Your task to perform on an android device: show emergency info Image 0: 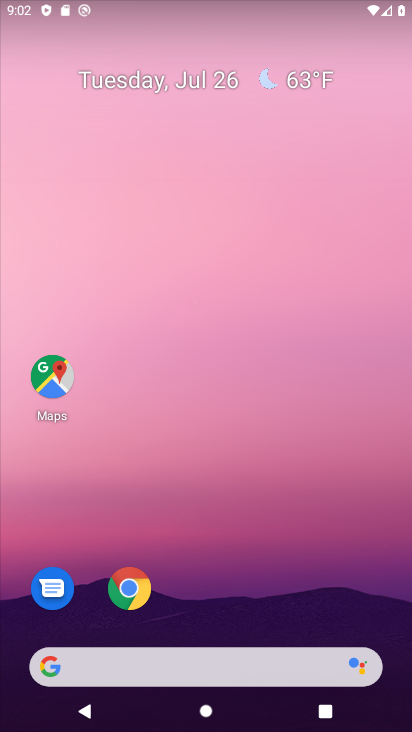
Step 0: drag from (203, 646) to (194, 352)
Your task to perform on an android device: show emergency info Image 1: 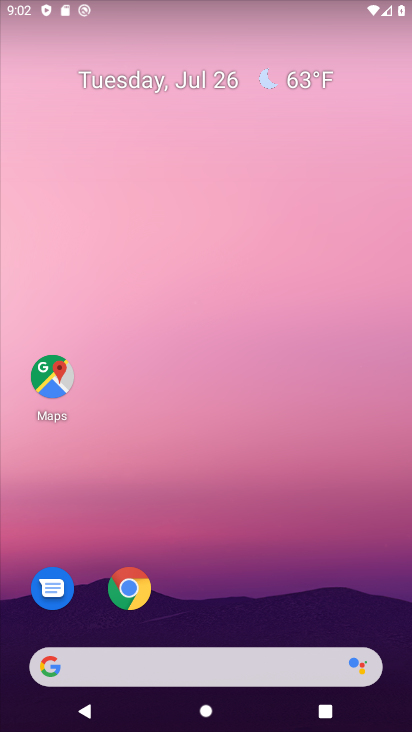
Step 1: drag from (197, 627) to (135, 47)
Your task to perform on an android device: show emergency info Image 2: 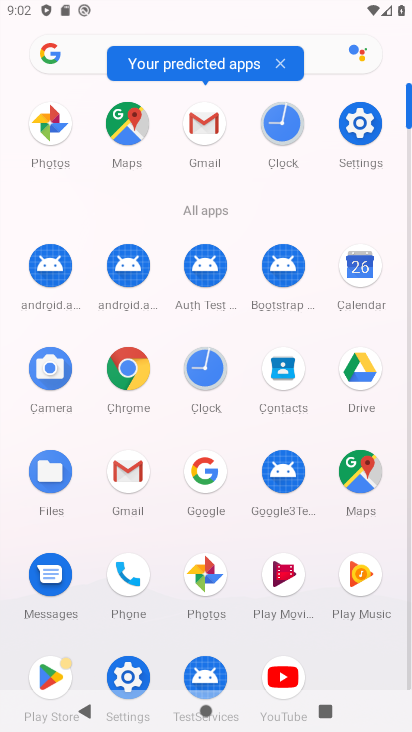
Step 2: click (370, 144)
Your task to perform on an android device: show emergency info Image 3: 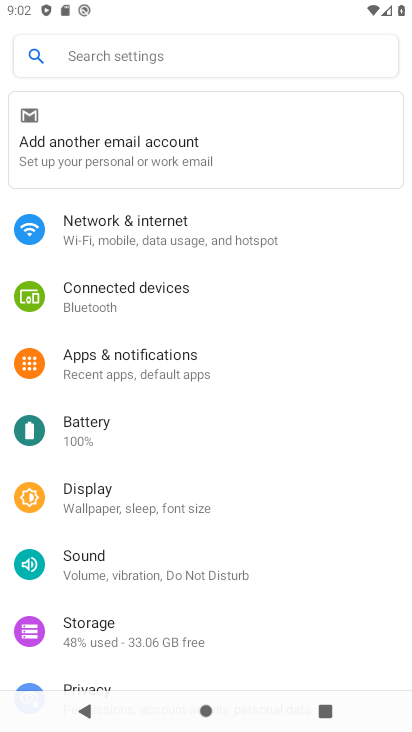
Step 3: drag from (118, 644) to (140, 91)
Your task to perform on an android device: show emergency info Image 4: 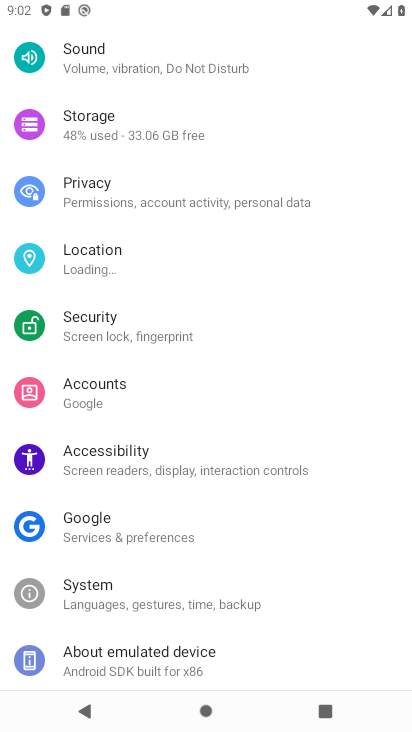
Step 4: drag from (141, 600) to (201, 24)
Your task to perform on an android device: show emergency info Image 5: 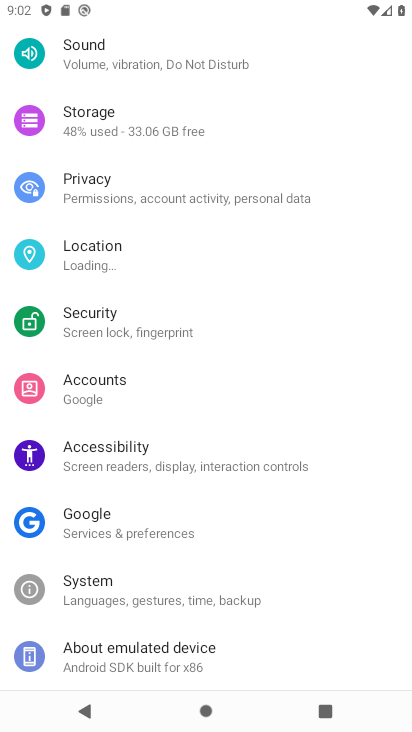
Step 5: click (146, 671)
Your task to perform on an android device: show emergency info Image 6: 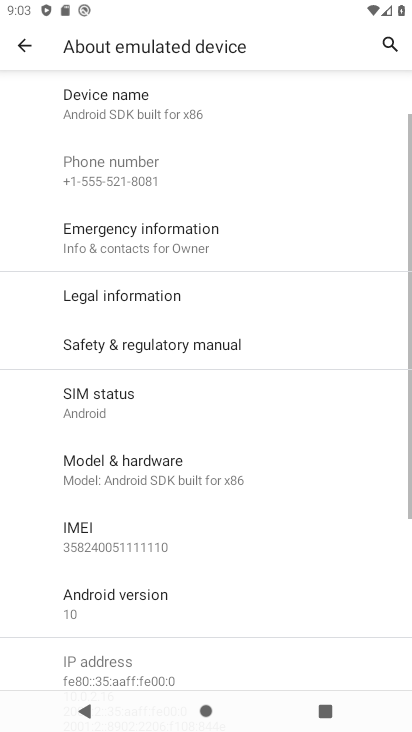
Step 6: click (169, 215)
Your task to perform on an android device: show emergency info Image 7: 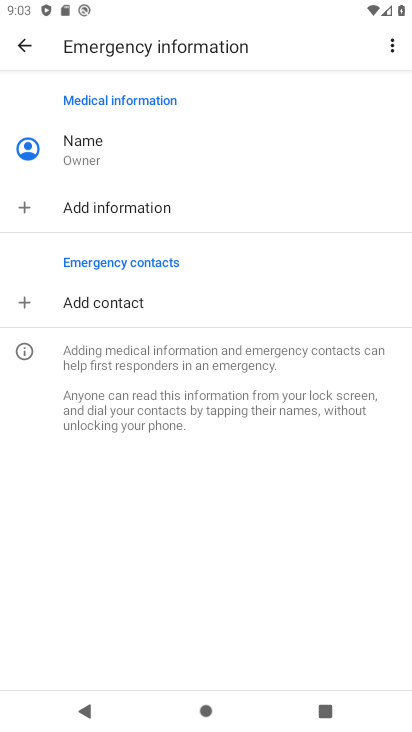
Step 7: task complete